Your task to perform on an android device: check out phone information Image 0: 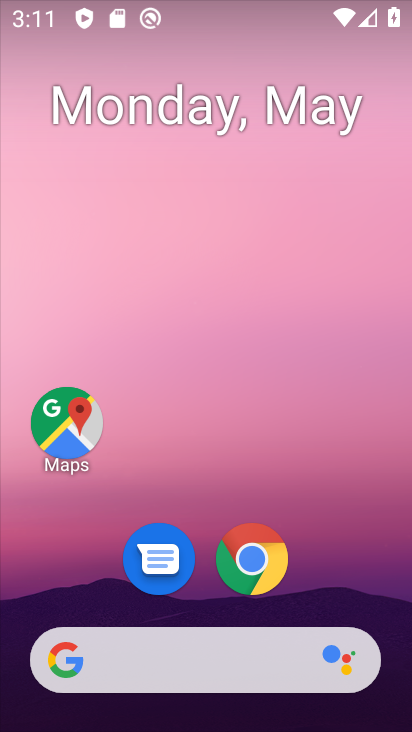
Step 0: drag from (377, 703) to (209, 6)
Your task to perform on an android device: check out phone information Image 1: 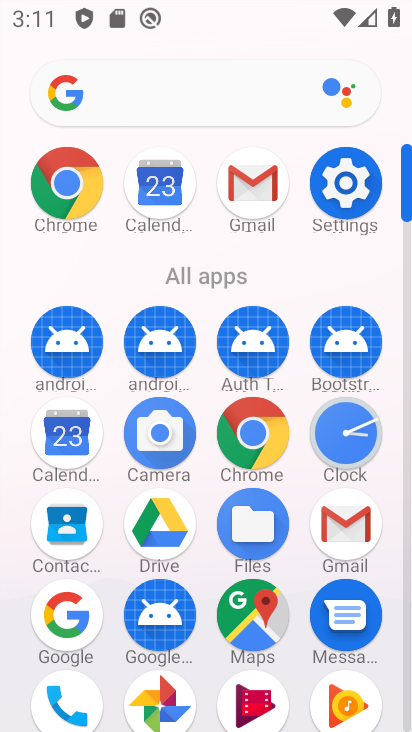
Step 1: click (351, 177)
Your task to perform on an android device: check out phone information Image 2: 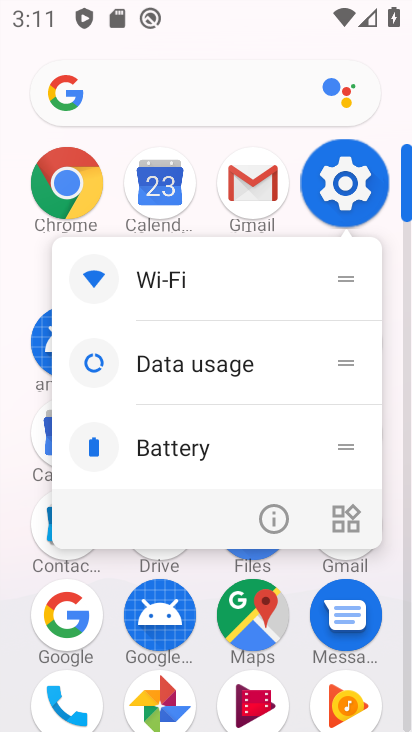
Step 2: click (351, 180)
Your task to perform on an android device: check out phone information Image 3: 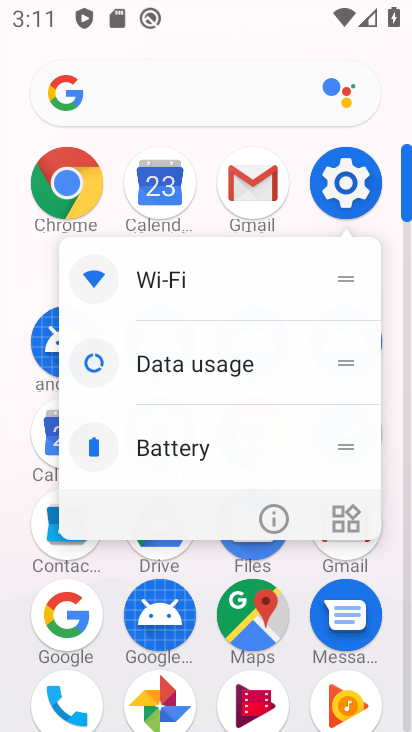
Step 3: click (351, 180)
Your task to perform on an android device: check out phone information Image 4: 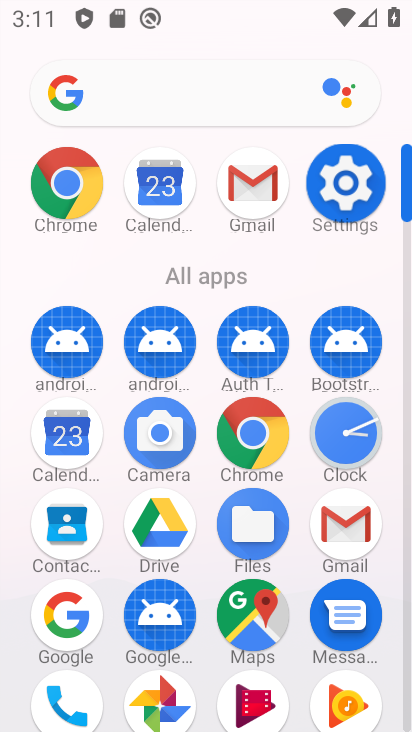
Step 4: click (356, 178)
Your task to perform on an android device: check out phone information Image 5: 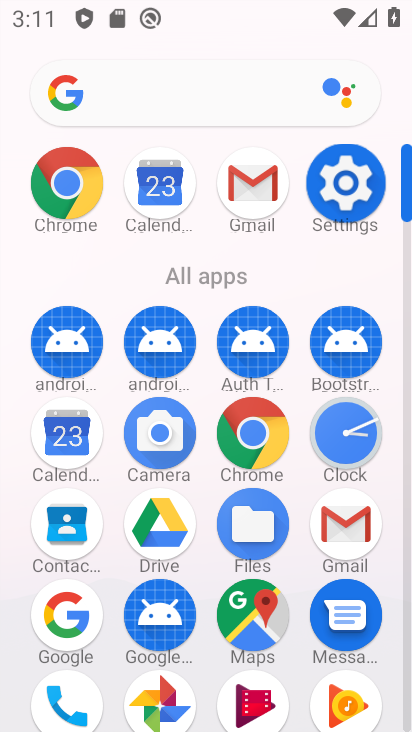
Step 5: click (355, 175)
Your task to perform on an android device: check out phone information Image 6: 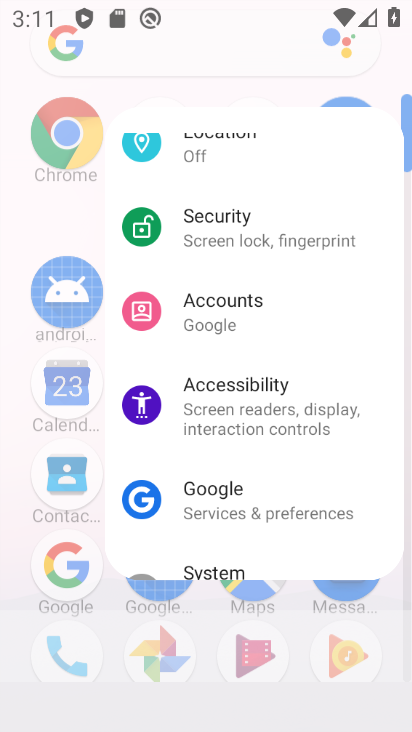
Step 6: click (355, 175)
Your task to perform on an android device: check out phone information Image 7: 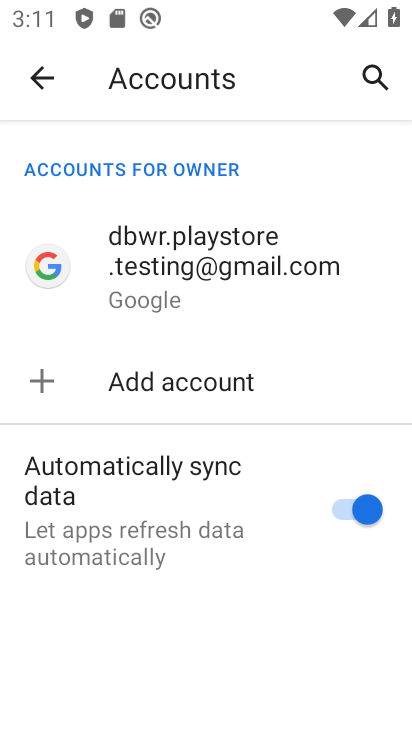
Step 7: click (48, 81)
Your task to perform on an android device: check out phone information Image 8: 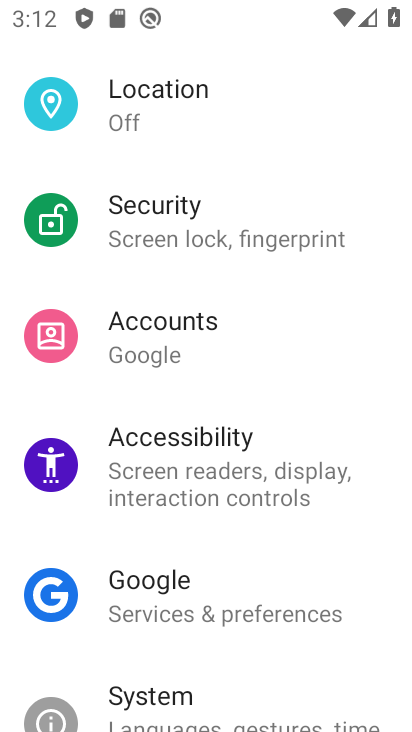
Step 8: drag from (217, 527) to (137, 110)
Your task to perform on an android device: check out phone information Image 9: 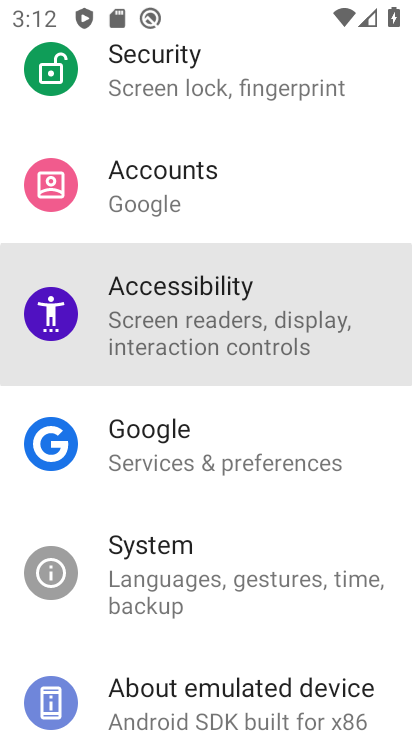
Step 9: drag from (252, 542) to (195, 160)
Your task to perform on an android device: check out phone information Image 10: 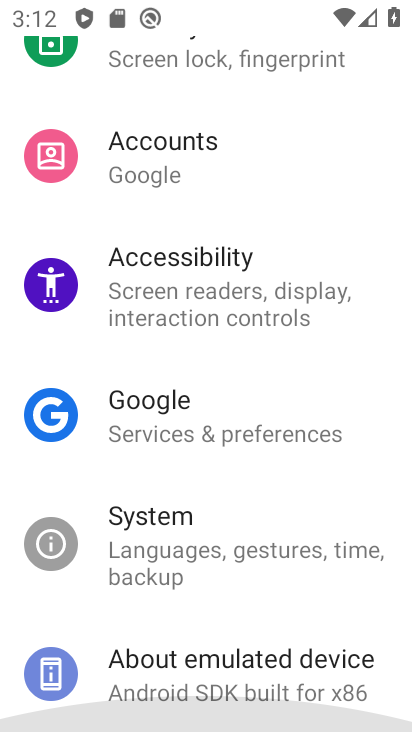
Step 10: drag from (226, 459) to (190, 73)
Your task to perform on an android device: check out phone information Image 11: 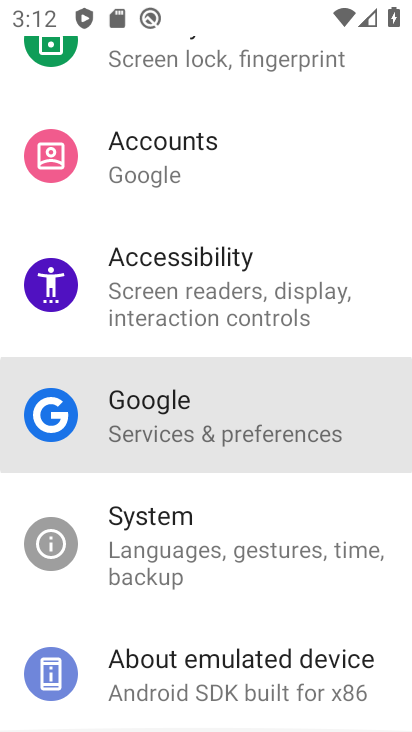
Step 11: drag from (180, 437) to (179, 146)
Your task to perform on an android device: check out phone information Image 12: 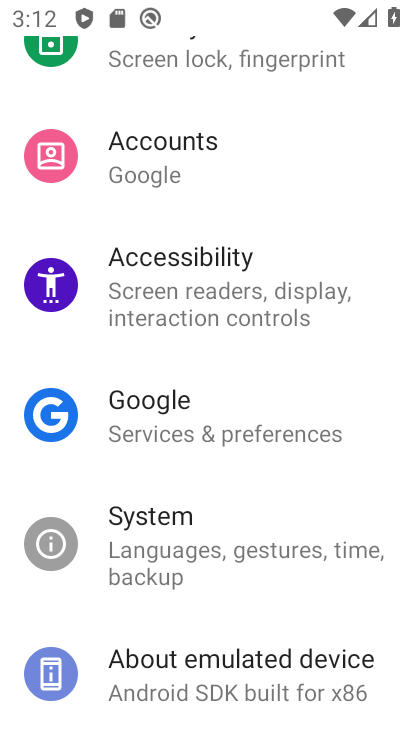
Step 12: drag from (282, 572) to (263, 245)
Your task to perform on an android device: check out phone information Image 13: 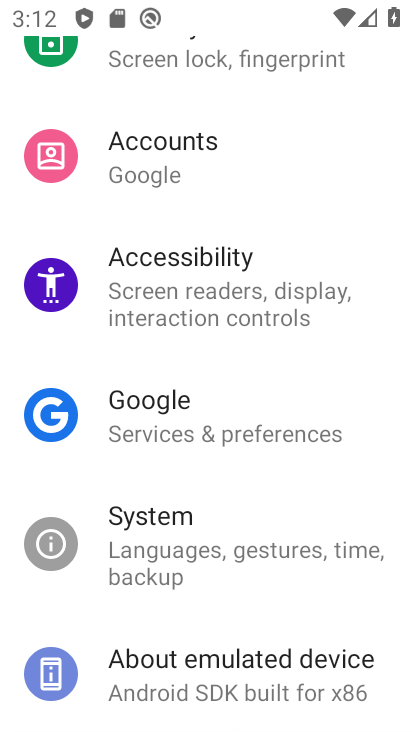
Step 13: click (228, 691)
Your task to perform on an android device: check out phone information Image 14: 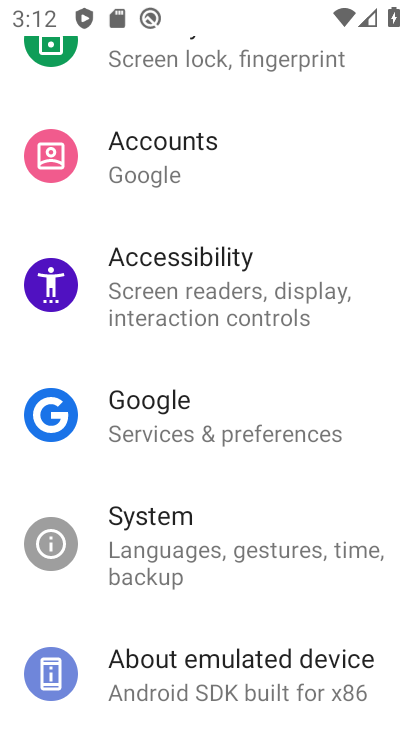
Step 14: click (223, 680)
Your task to perform on an android device: check out phone information Image 15: 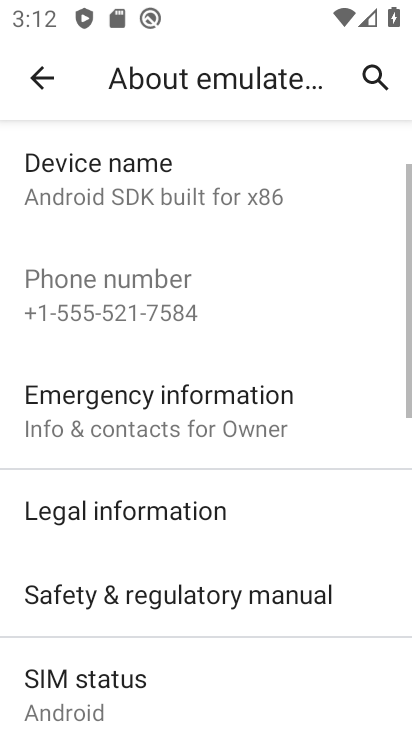
Step 15: click (223, 680)
Your task to perform on an android device: check out phone information Image 16: 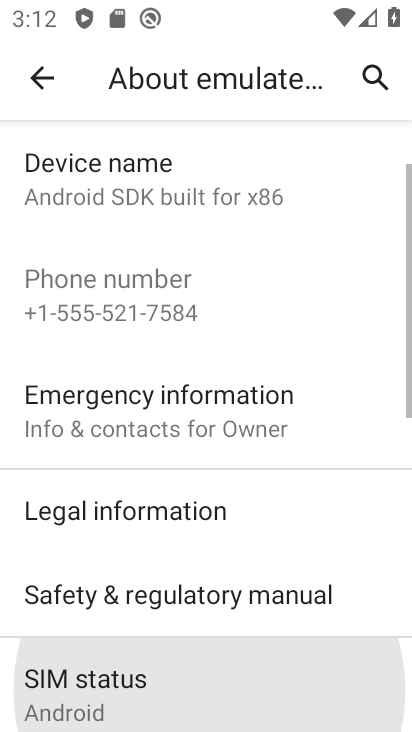
Step 16: click (228, 674)
Your task to perform on an android device: check out phone information Image 17: 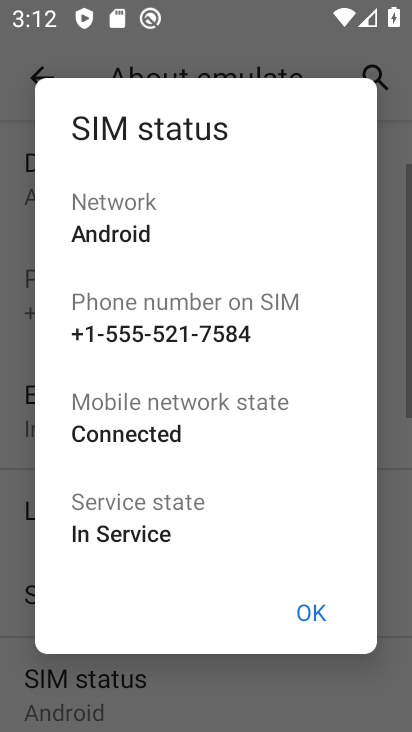
Step 17: click (293, 603)
Your task to perform on an android device: check out phone information Image 18: 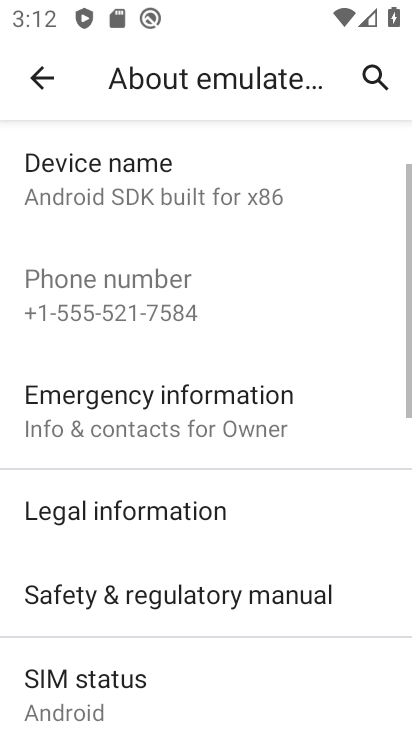
Step 18: task complete